Your task to perform on an android device: choose inbox layout in the gmail app Image 0: 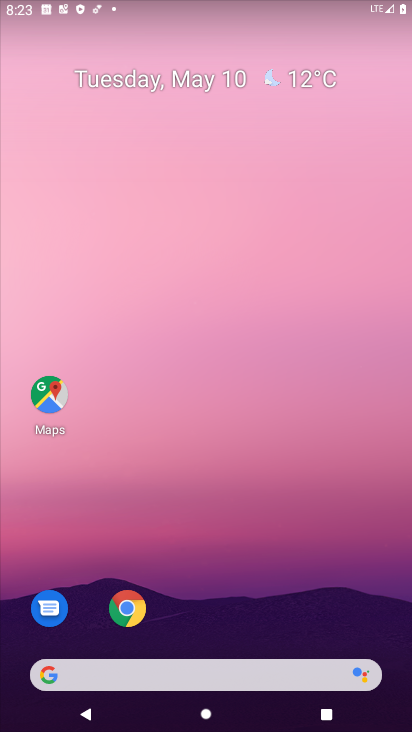
Step 0: press home button
Your task to perform on an android device: choose inbox layout in the gmail app Image 1: 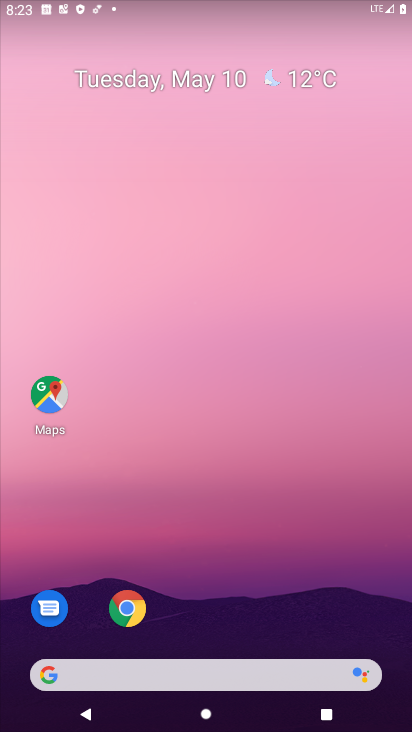
Step 1: drag from (168, 675) to (404, 138)
Your task to perform on an android device: choose inbox layout in the gmail app Image 2: 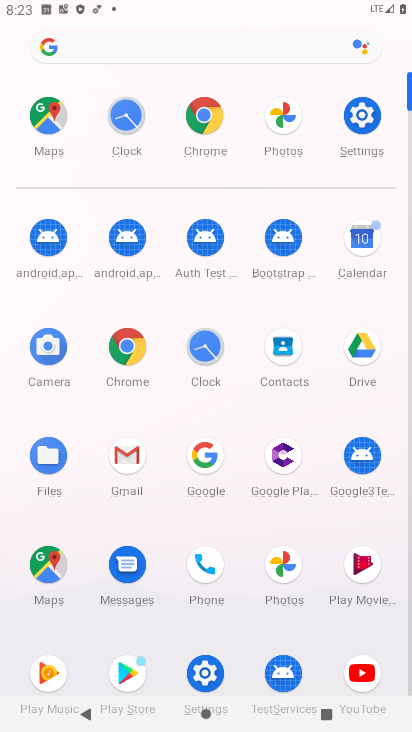
Step 2: click (124, 464)
Your task to perform on an android device: choose inbox layout in the gmail app Image 3: 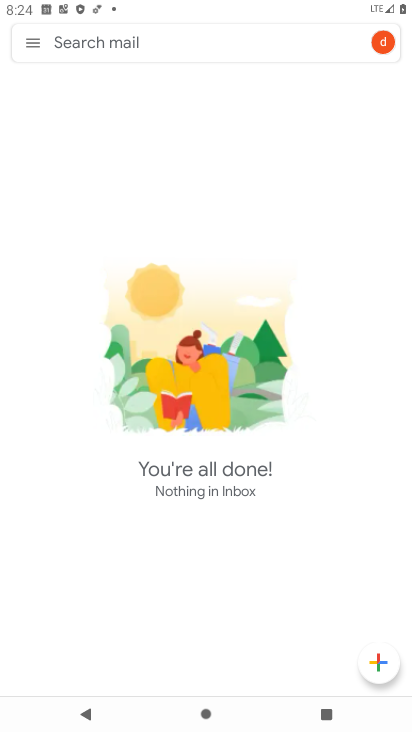
Step 3: click (29, 40)
Your task to perform on an android device: choose inbox layout in the gmail app Image 4: 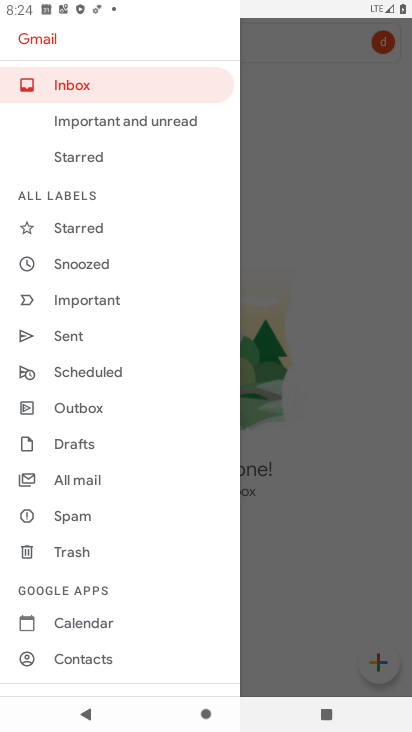
Step 4: drag from (136, 593) to (198, 231)
Your task to perform on an android device: choose inbox layout in the gmail app Image 5: 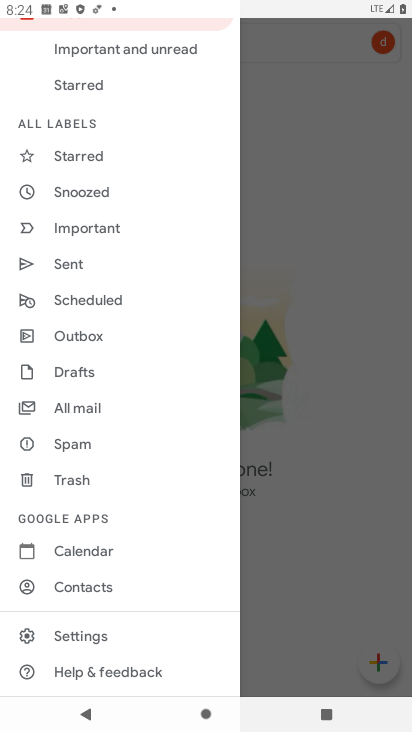
Step 5: click (83, 643)
Your task to perform on an android device: choose inbox layout in the gmail app Image 6: 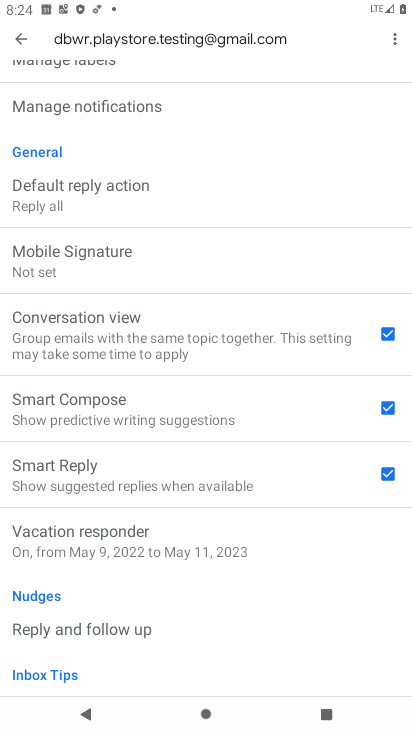
Step 6: drag from (235, 154) to (195, 578)
Your task to perform on an android device: choose inbox layout in the gmail app Image 7: 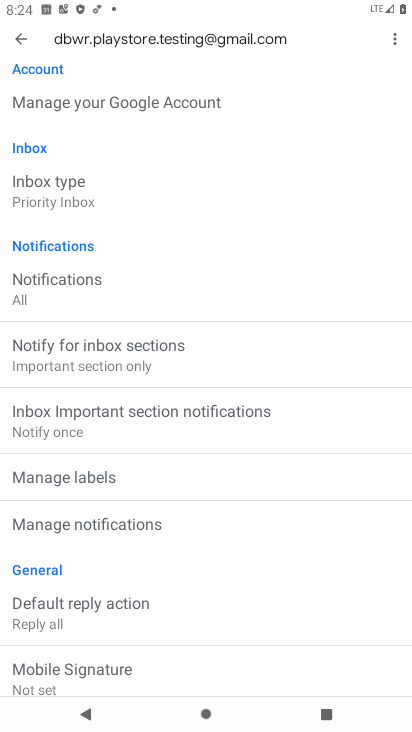
Step 7: click (67, 207)
Your task to perform on an android device: choose inbox layout in the gmail app Image 8: 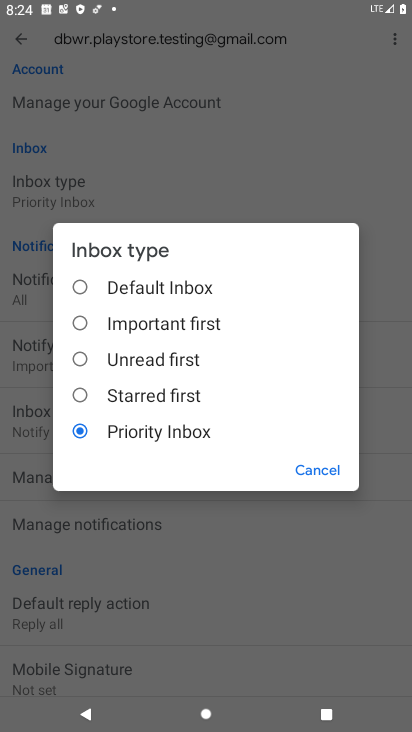
Step 8: click (76, 331)
Your task to perform on an android device: choose inbox layout in the gmail app Image 9: 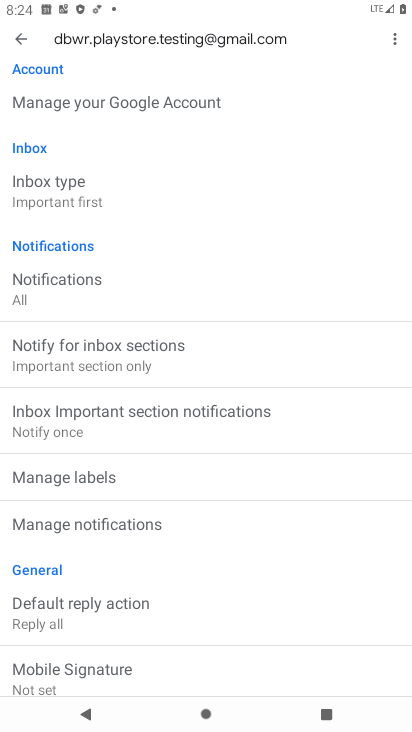
Step 9: task complete